Your task to perform on an android device: Show me the alarms in the clock app Image 0: 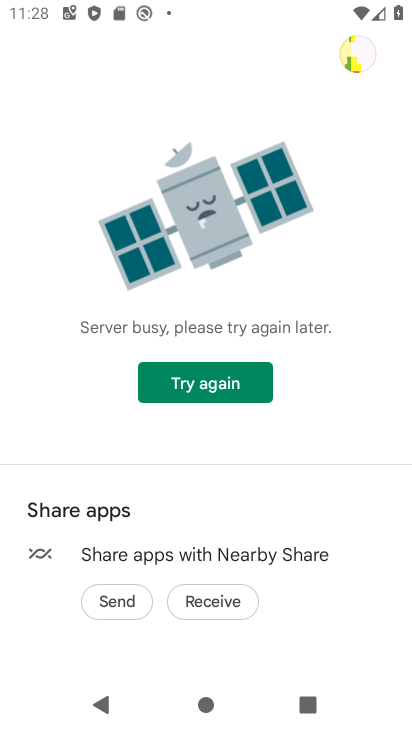
Step 0: press home button
Your task to perform on an android device: Show me the alarms in the clock app Image 1: 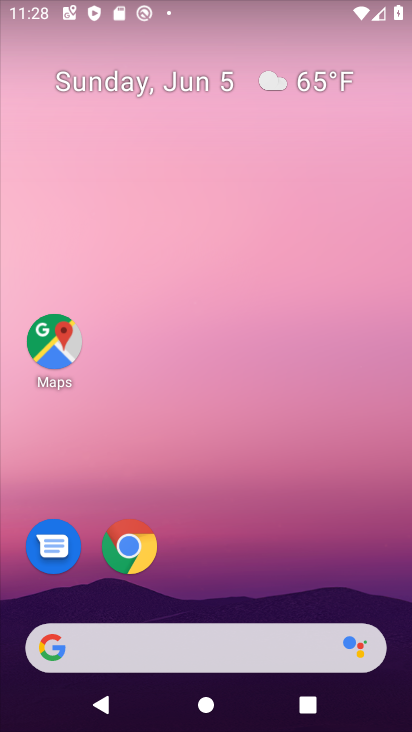
Step 1: drag from (150, 495) to (139, 409)
Your task to perform on an android device: Show me the alarms in the clock app Image 2: 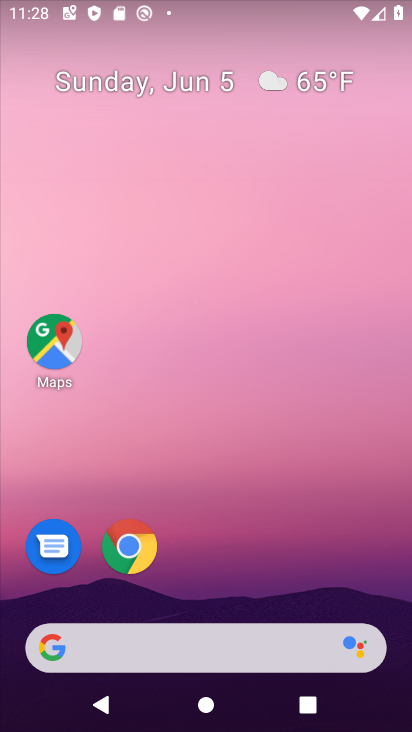
Step 2: drag from (241, 619) to (220, 225)
Your task to perform on an android device: Show me the alarms in the clock app Image 3: 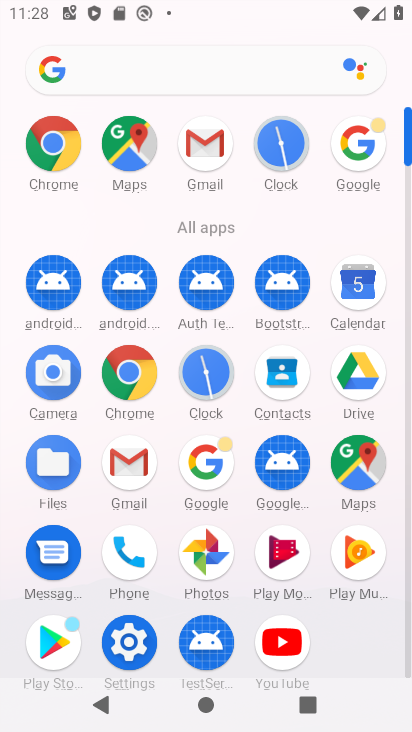
Step 3: click (285, 160)
Your task to perform on an android device: Show me the alarms in the clock app Image 4: 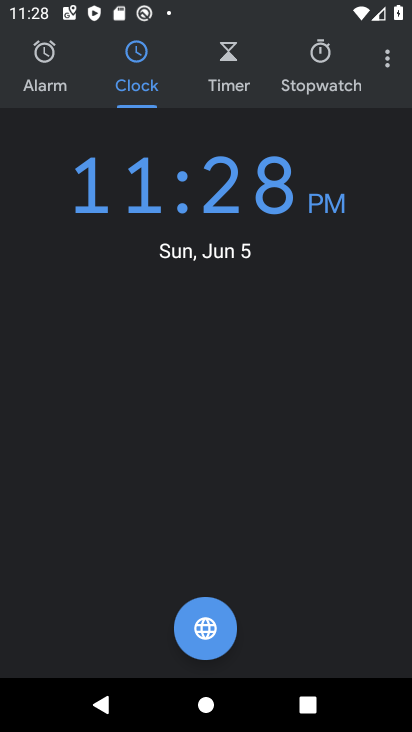
Step 4: click (60, 59)
Your task to perform on an android device: Show me the alarms in the clock app Image 5: 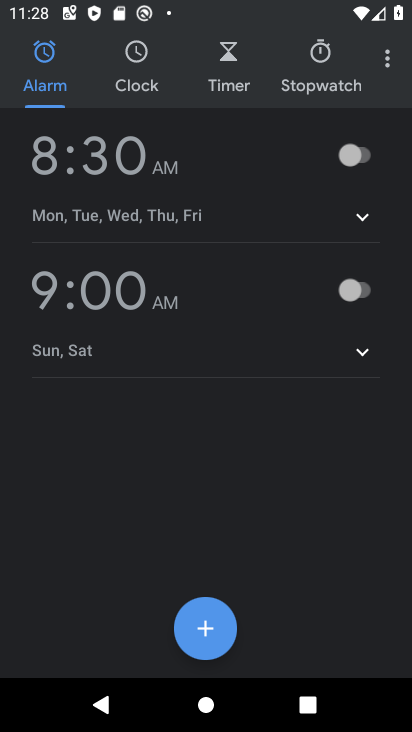
Step 5: task complete